Your task to perform on an android device: turn notification dots off Image 0: 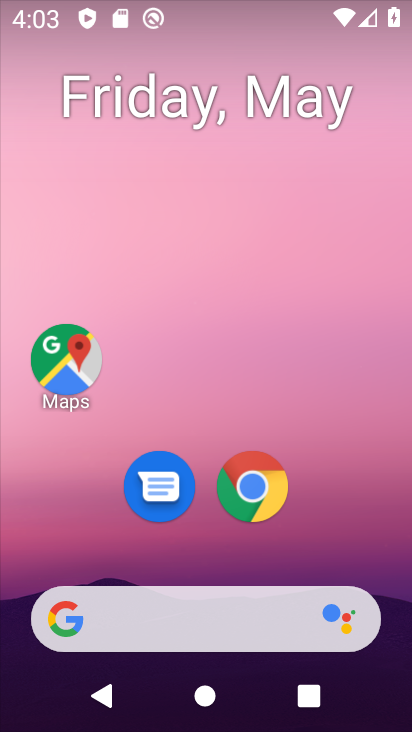
Step 0: drag from (405, 684) to (213, 7)
Your task to perform on an android device: turn notification dots off Image 1: 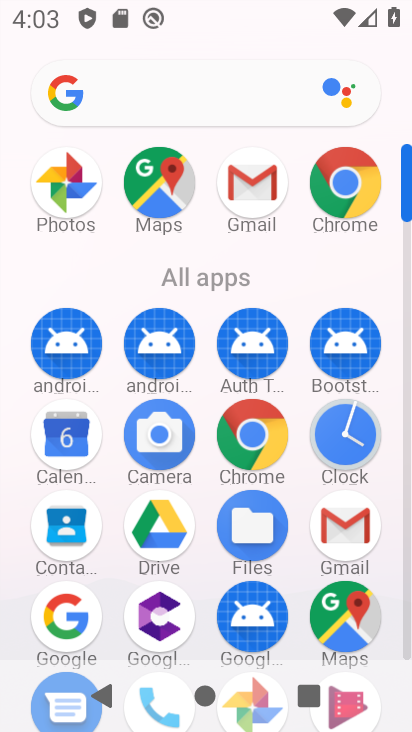
Step 1: drag from (8, 548) to (29, 198)
Your task to perform on an android device: turn notification dots off Image 2: 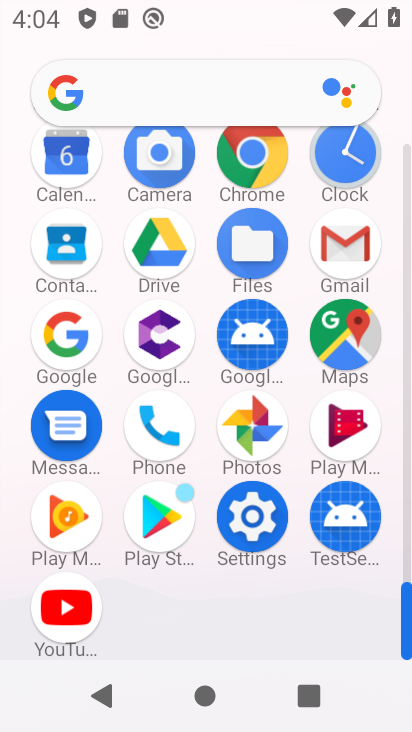
Step 2: click (254, 511)
Your task to perform on an android device: turn notification dots off Image 3: 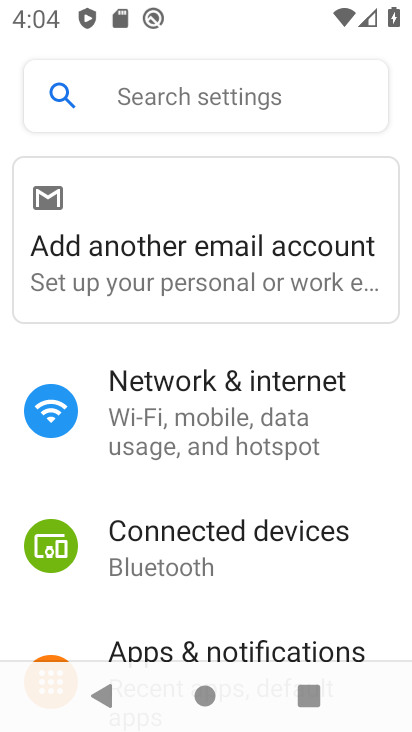
Step 3: drag from (315, 584) to (364, 160)
Your task to perform on an android device: turn notification dots off Image 4: 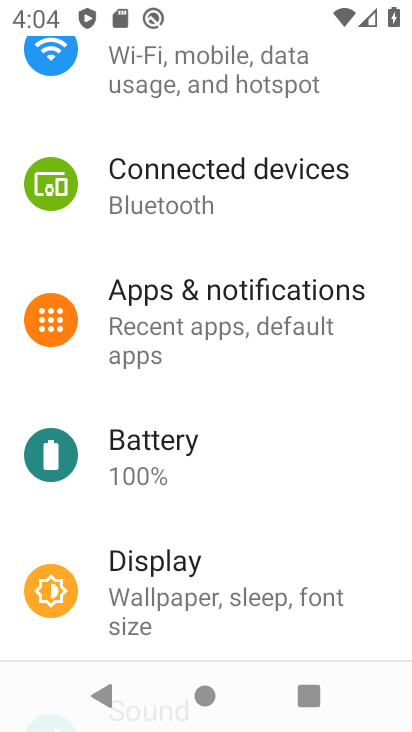
Step 4: click (259, 302)
Your task to perform on an android device: turn notification dots off Image 5: 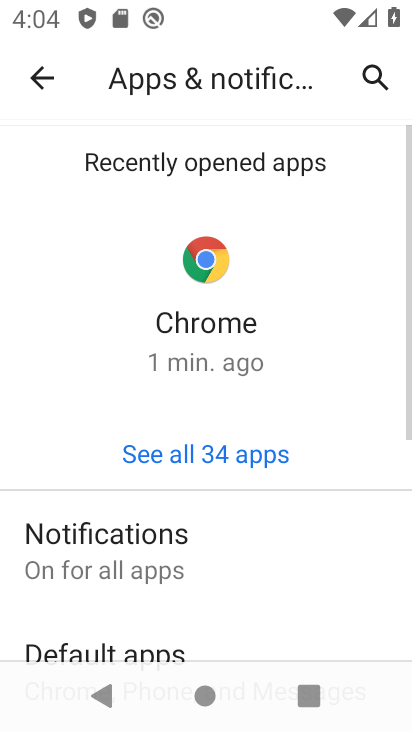
Step 5: click (211, 544)
Your task to perform on an android device: turn notification dots off Image 6: 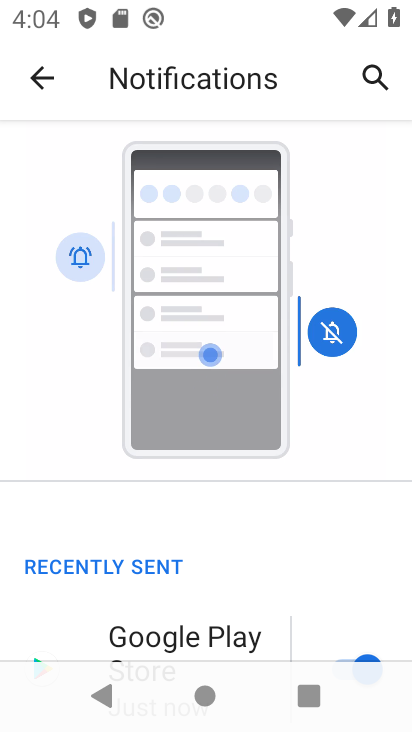
Step 6: drag from (211, 543) to (268, 98)
Your task to perform on an android device: turn notification dots off Image 7: 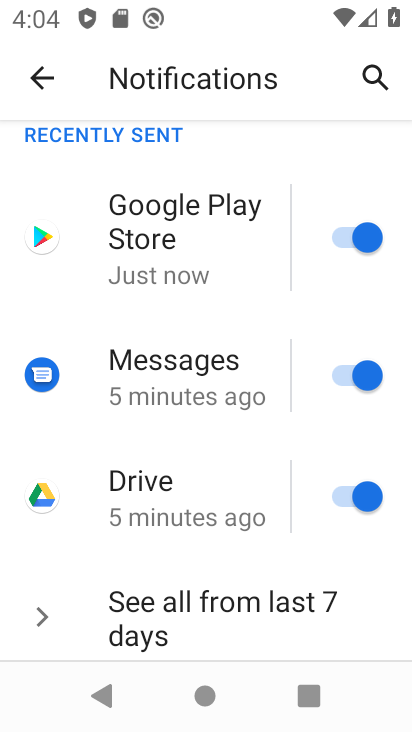
Step 7: drag from (198, 548) to (190, 110)
Your task to perform on an android device: turn notification dots off Image 8: 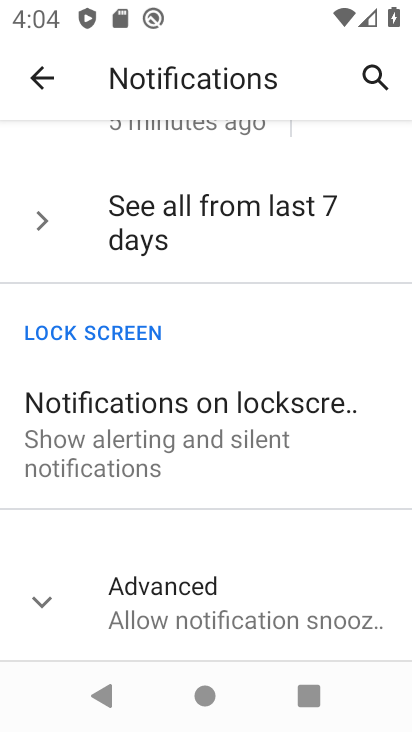
Step 8: drag from (180, 241) to (190, 569)
Your task to perform on an android device: turn notification dots off Image 9: 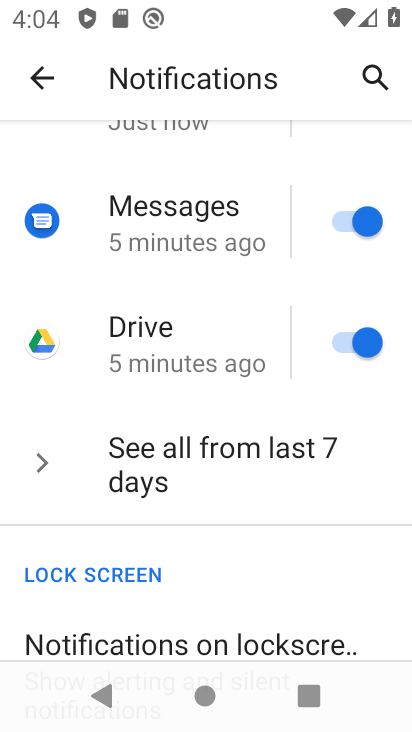
Step 9: drag from (190, 239) to (174, 588)
Your task to perform on an android device: turn notification dots off Image 10: 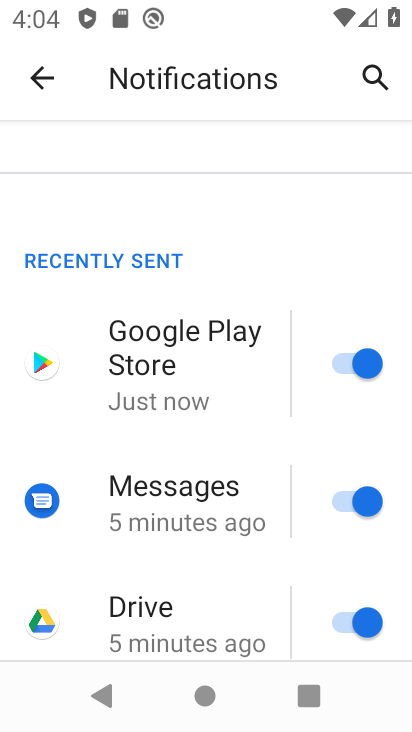
Step 10: drag from (183, 211) to (181, 606)
Your task to perform on an android device: turn notification dots off Image 11: 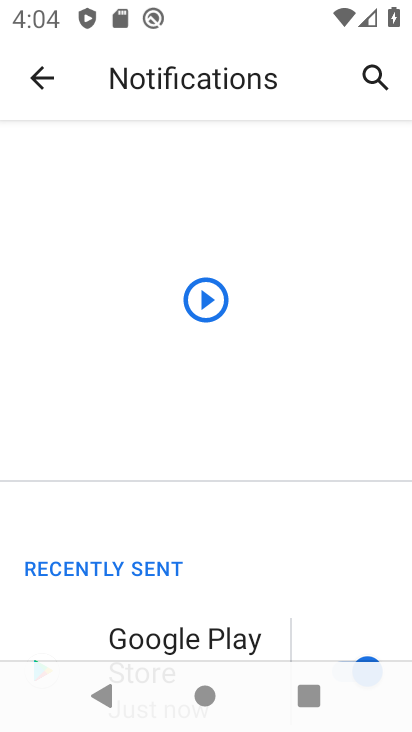
Step 11: drag from (237, 248) to (195, 604)
Your task to perform on an android device: turn notification dots off Image 12: 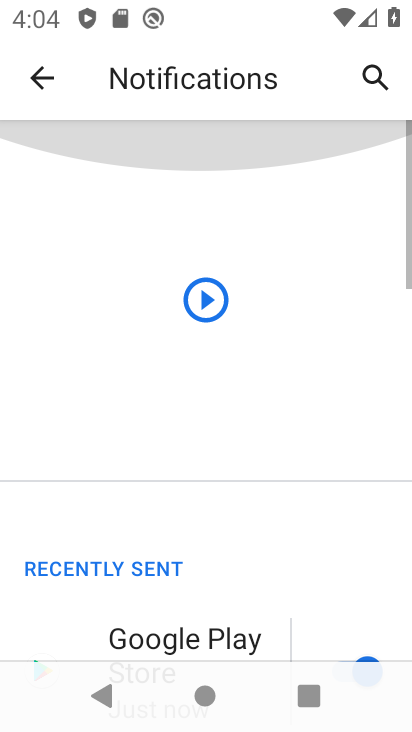
Step 12: drag from (195, 604) to (249, 144)
Your task to perform on an android device: turn notification dots off Image 13: 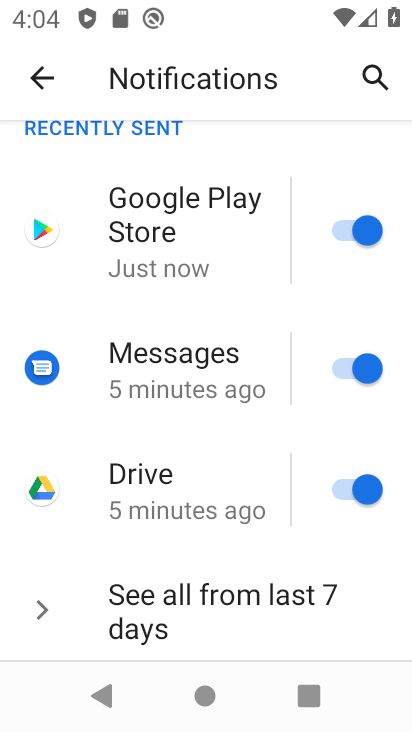
Step 13: drag from (206, 462) to (219, 175)
Your task to perform on an android device: turn notification dots off Image 14: 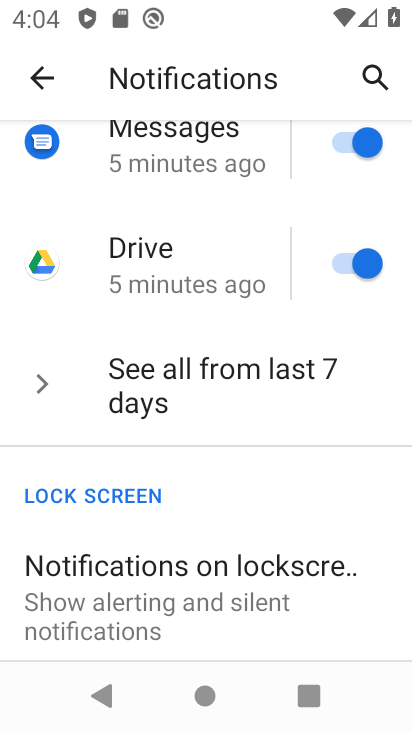
Step 14: drag from (203, 550) to (208, 168)
Your task to perform on an android device: turn notification dots off Image 15: 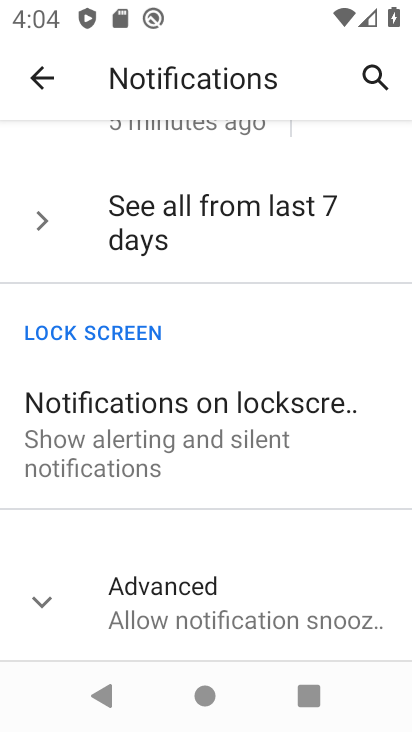
Step 15: click (195, 577)
Your task to perform on an android device: turn notification dots off Image 16: 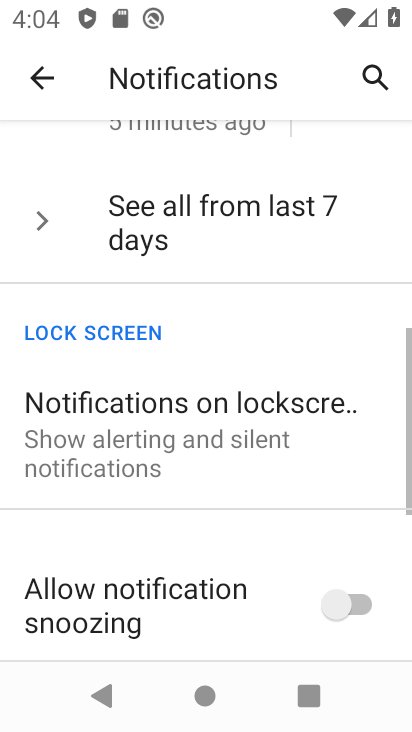
Step 16: drag from (264, 576) to (241, 96)
Your task to perform on an android device: turn notification dots off Image 17: 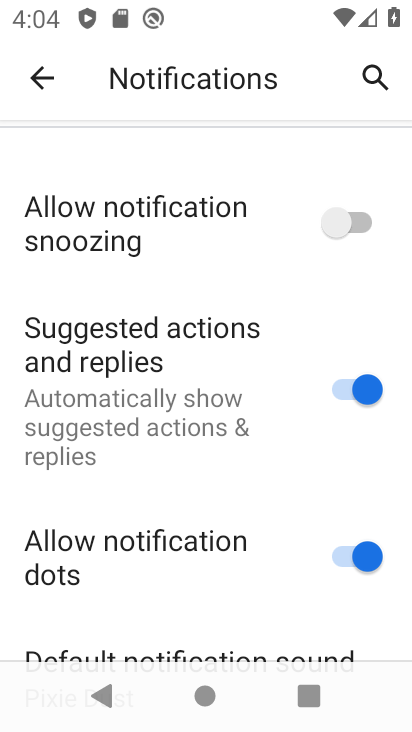
Step 17: drag from (196, 550) to (198, 213)
Your task to perform on an android device: turn notification dots off Image 18: 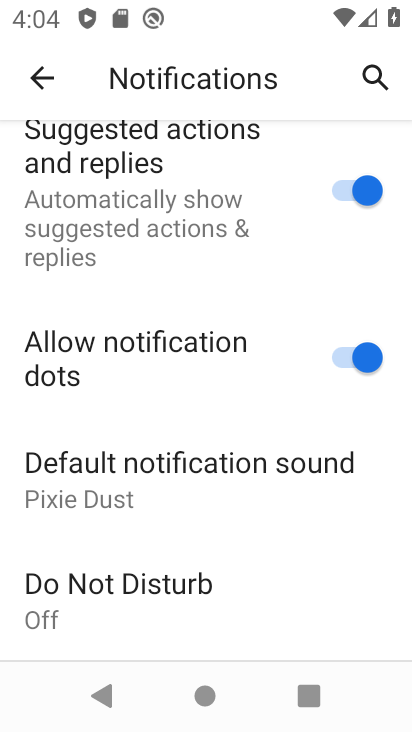
Step 18: click (335, 370)
Your task to perform on an android device: turn notification dots off Image 19: 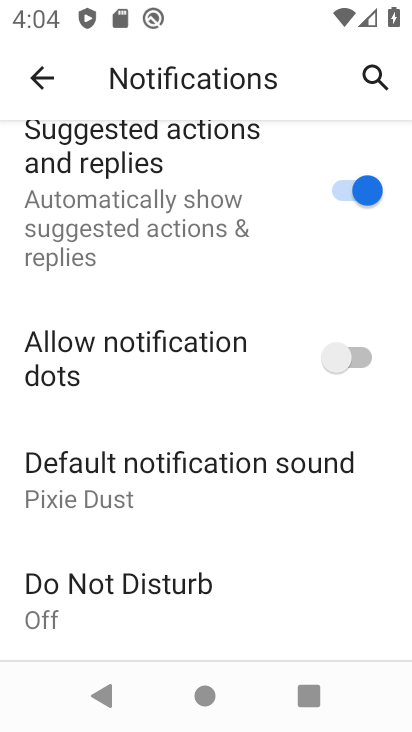
Step 19: task complete